Your task to perform on an android device: Go to calendar. Show me events next week Image 0: 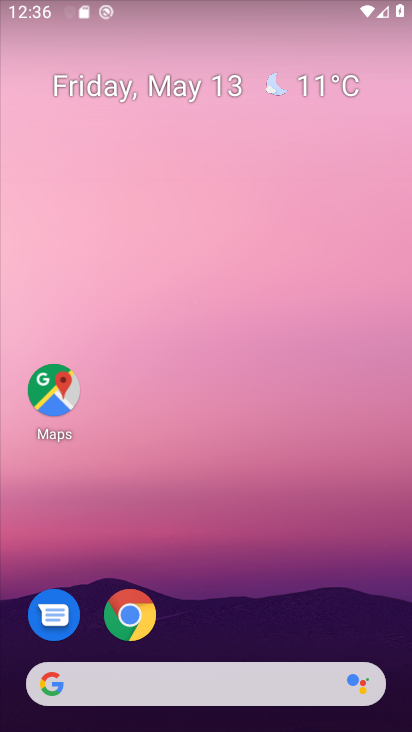
Step 0: drag from (212, 456) to (332, 16)
Your task to perform on an android device: Go to calendar. Show me events next week Image 1: 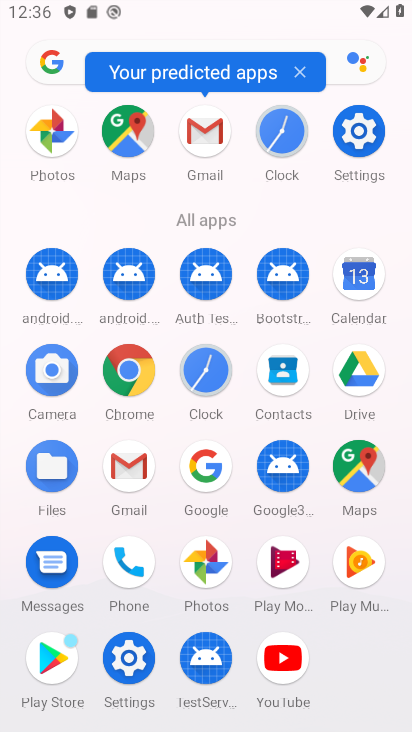
Step 1: click (363, 291)
Your task to perform on an android device: Go to calendar. Show me events next week Image 2: 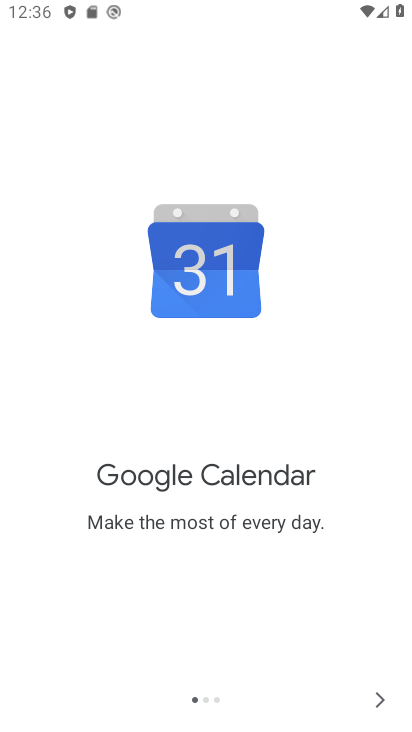
Step 2: click (380, 703)
Your task to perform on an android device: Go to calendar. Show me events next week Image 3: 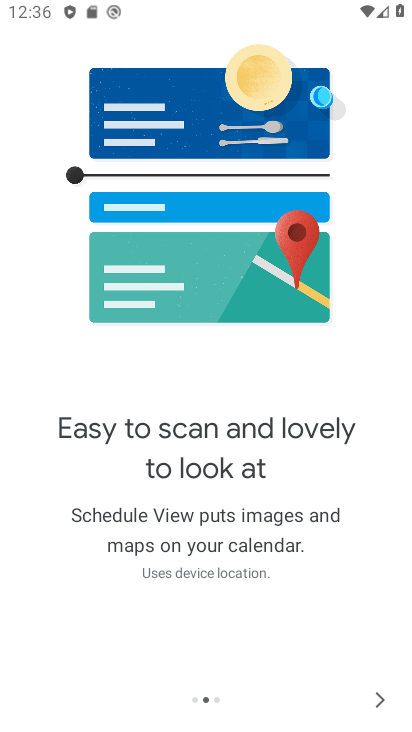
Step 3: click (380, 703)
Your task to perform on an android device: Go to calendar. Show me events next week Image 4: 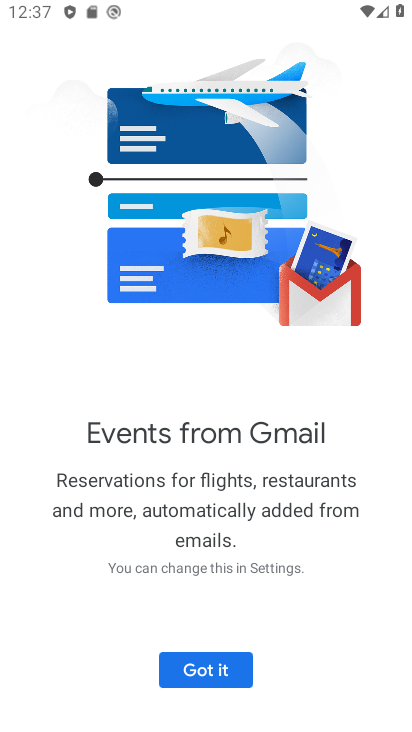
Step 4: click (229, 669)
Your task to perform on an android device: Go to calendar. Show me events next week Image 5: 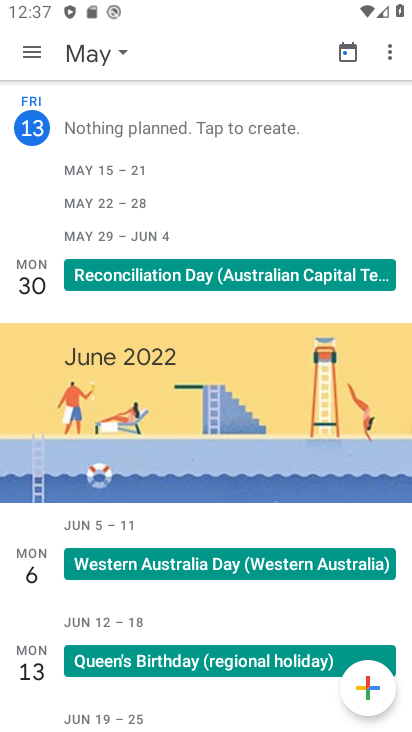
Step 5: click (24, 56)
Your task to perform on an android device: Go to calendar. Show me events next week Image 6: 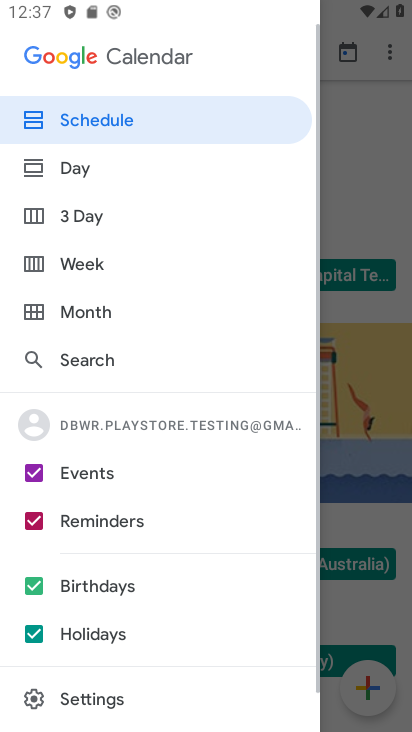
Step 6: click (130, 521)
Your task to perform on an android device: Go to calendar. Show me events next week Image 7: 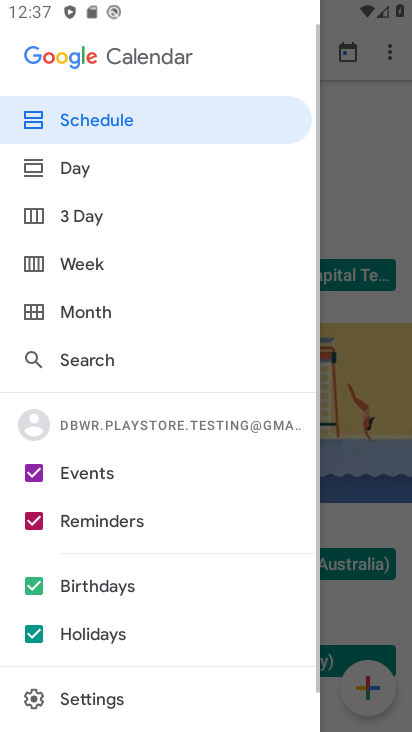
Step 7: click (104, 595)
Your task to perform on an android device: Go to calendar. Show me events next week Image 8: 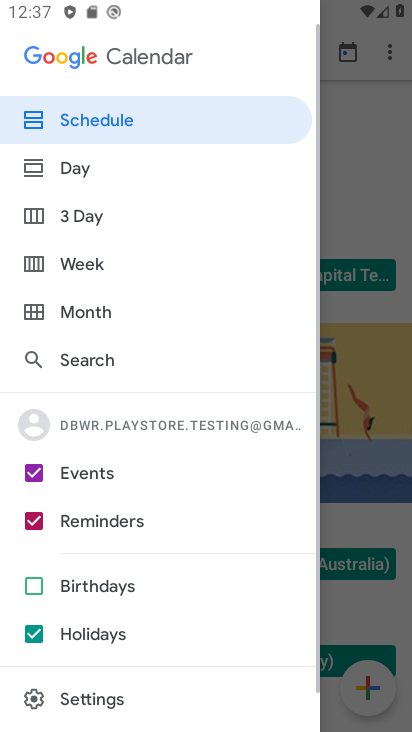
Step 8: click (61, 637)
Your task to perform on an android device: Go to calendar. Show me events next week Image 9: 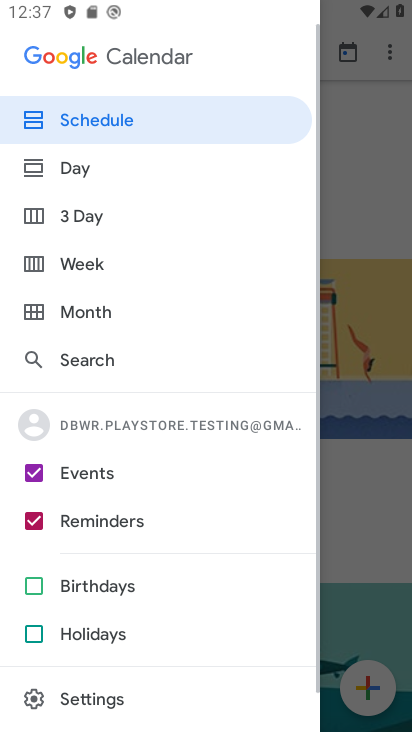
Step 9: click (83, 525)
Your task to perform on an android device: Go to calendar. Show me events next week Image 10: 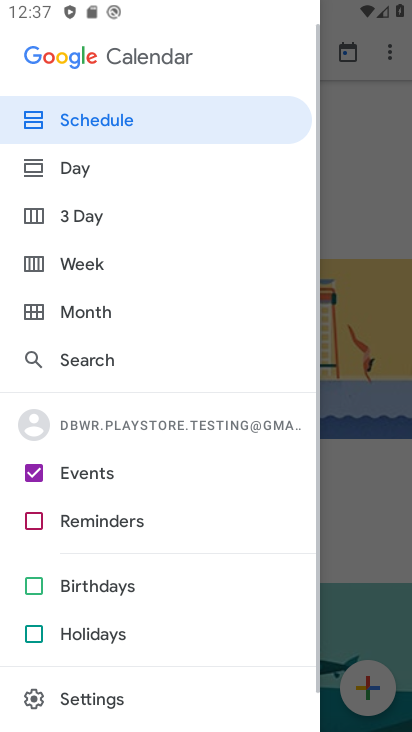
Step 10: click (94, 270)
Your task to perform on an android device: Go to calendar. Show me events next week Image 11: 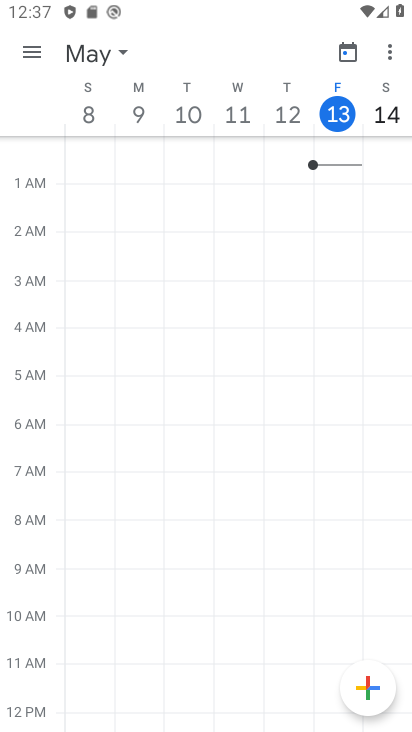
Step 11: task complete